Your task to perform on an android device: Open accessibility settings Image 0: 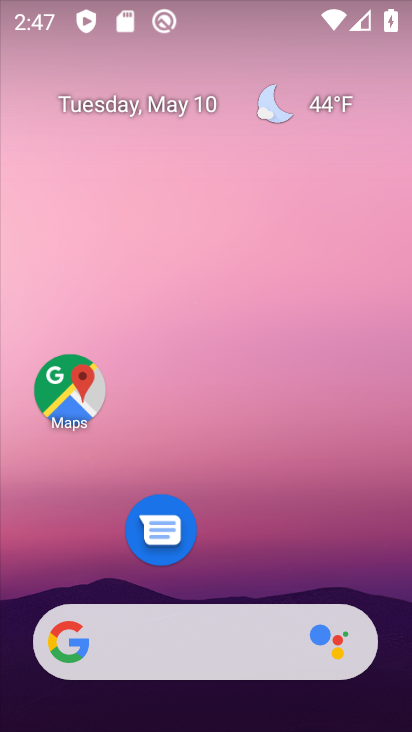
Step 0: drag from (250, 560) to (261, 62)
Your task to perform on an android device: Open accessibility settings Image 1: 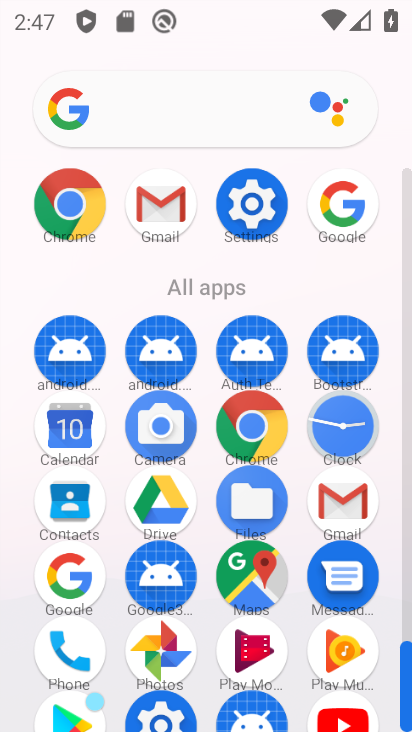
Step 1: click (256, 203)
Your task to perform on an android device: Open accessibility settings Image 2: 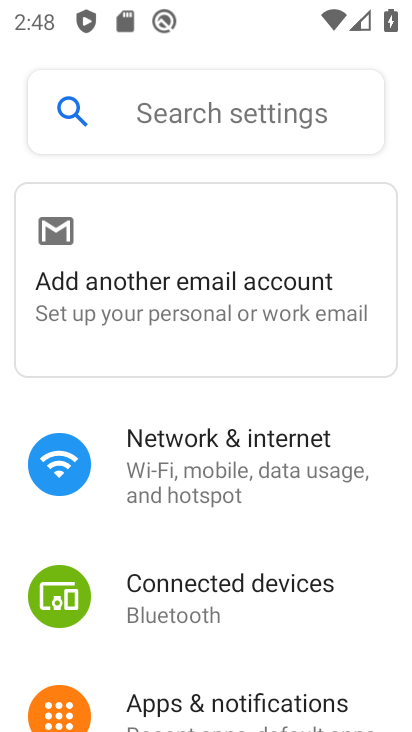
Step 2: drag from (295, 642) to (293, 11)
Your task to perform on an android device: Open accessibility settings Image 3: 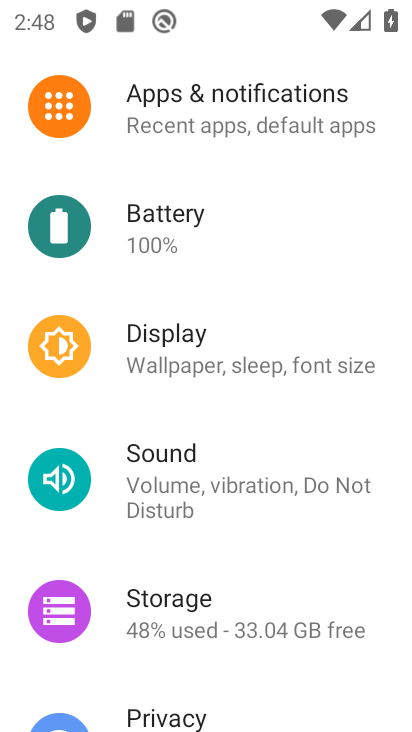
Step 3: drag from (246, 678) to (252, 13)
Your task to perform on an android device: Open accessibility settings Image 4: 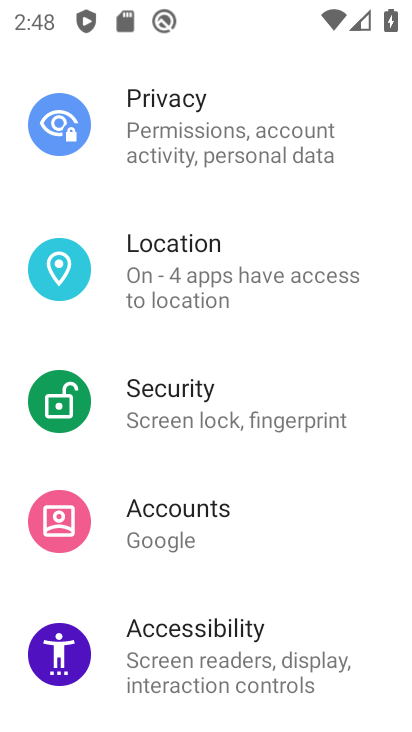
Step 4: click (216, 652)
Your task to perform on an android device: Open accessibility settings Image 5: 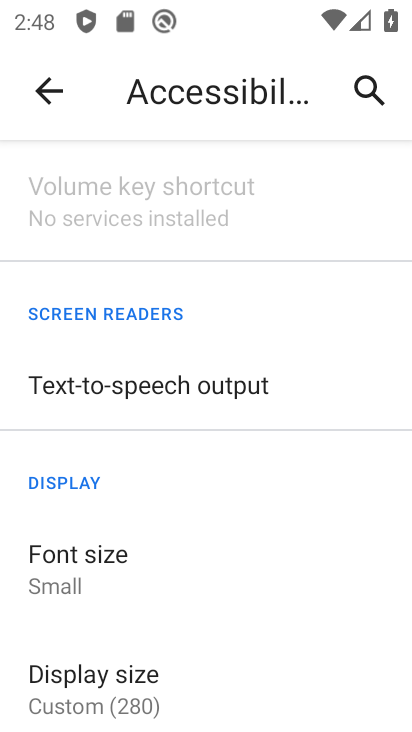
Step 5: task complete